Your task to perform on an android device: Open location settings Image 0: 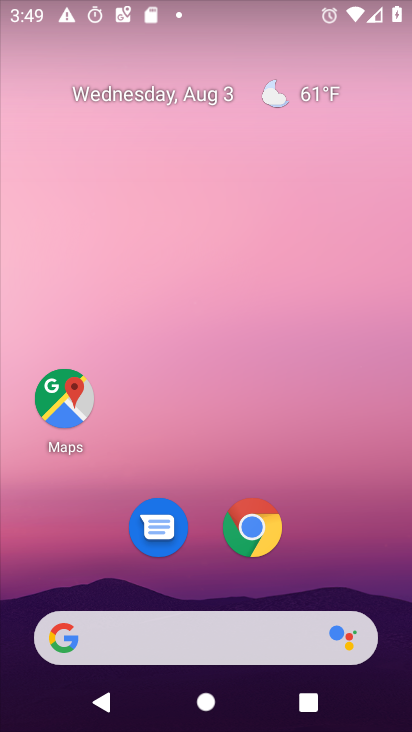
Step 0: drag from (346, 514) to (362, 49)
Your task to perform on an android device: Open location settings Image 1: 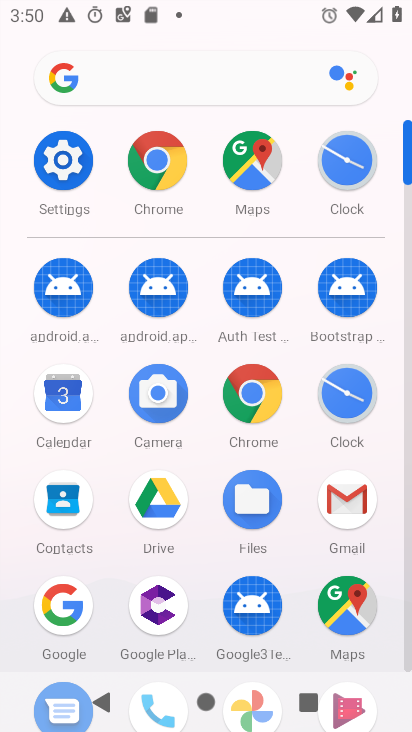
Step 1: click (64, 148)
Your task to perform on an android device: Open location settings Image 2: 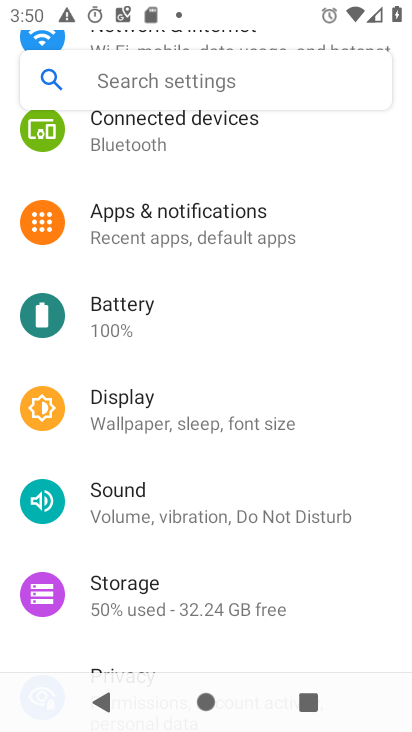
Step 2: drag from (209, 286) to (234, 656)
Your task to perform on an android device: Open location settings Image 3: 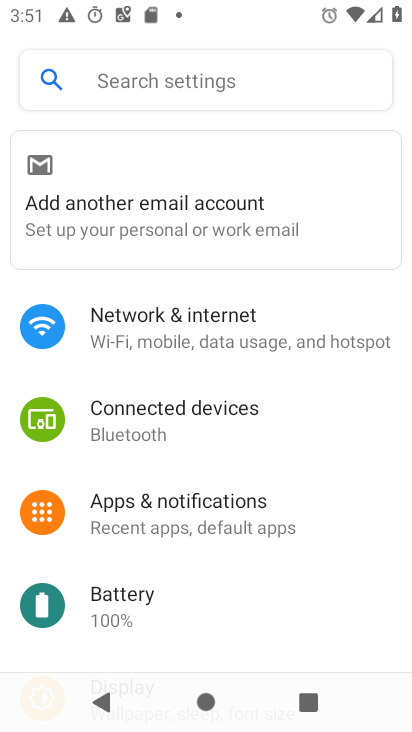
Step 3: drag from (229, 628) to (260, 140)
Your task to perform on an android device: Open location settings Image 4: 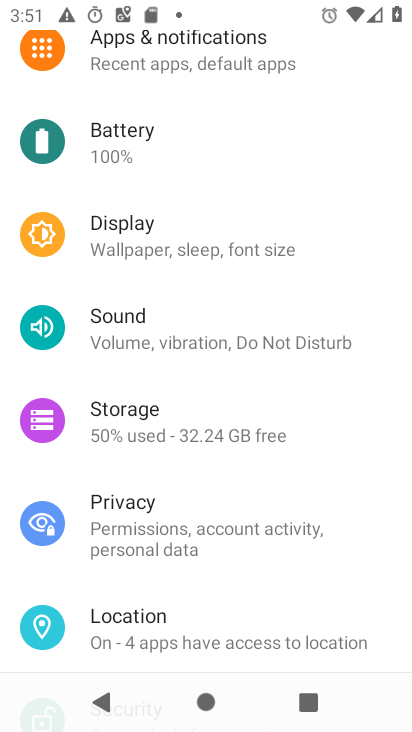
Step 4: click (135, 604)
Your task to perform on an android device: Open location settings Image 5: 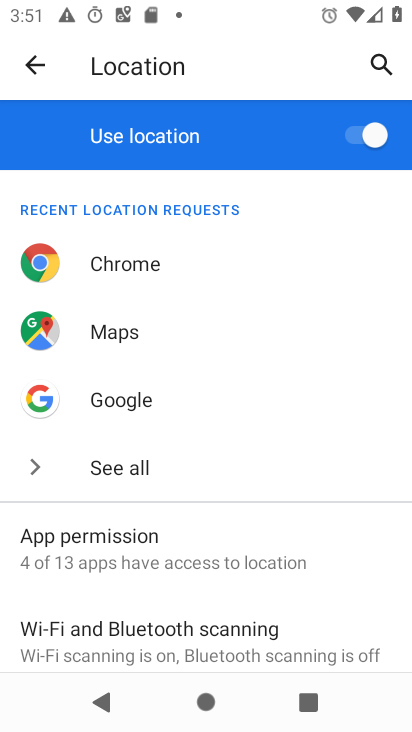
Step 5: task complete